Your task to perform on an android device: move an email to a new category in the gmail app Image 0: 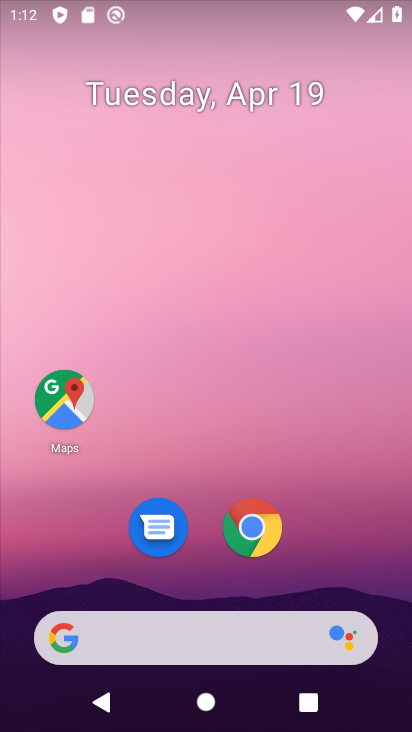
Step 0: click (254, 532)
Your task to perform on an android device: move an email to a new category in the gmail app Image 1: 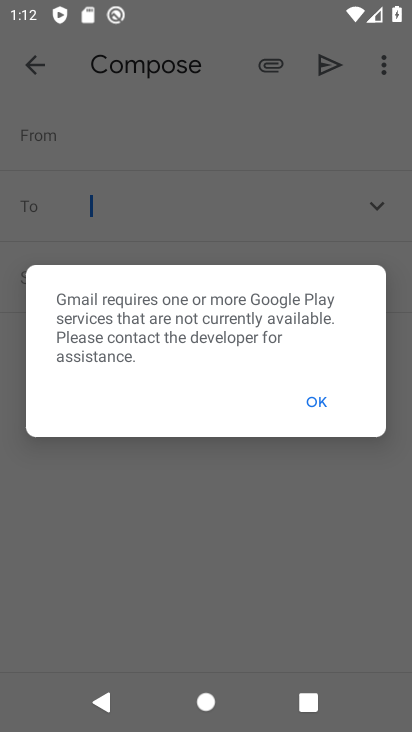
Step 1: press back button
Your task to perform on an android device: move an email to a new category in the gmail app Image 2: 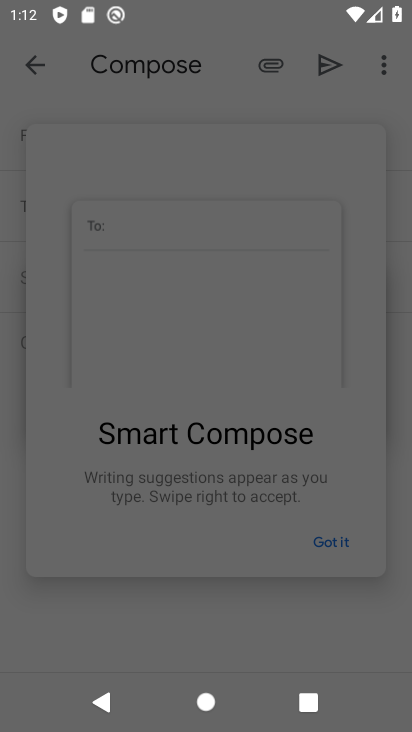
Step 2: press back button
Your task to perform on an android device: move an email to a new category in the gmail app Image 3: 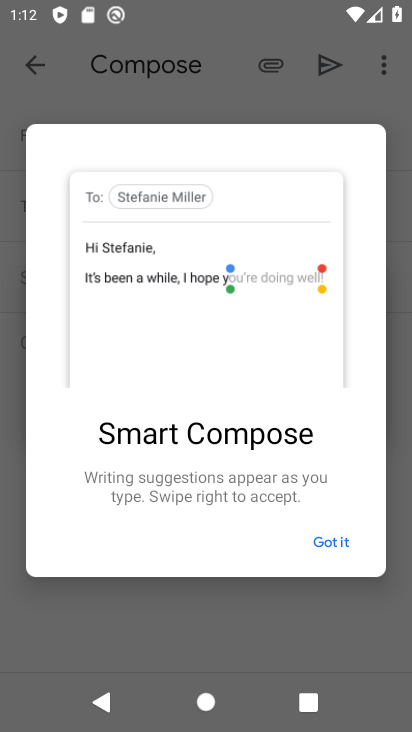
Step 3: press back button
Your task to perform on an android device: move an email to a new category in the gmail app Image 4: 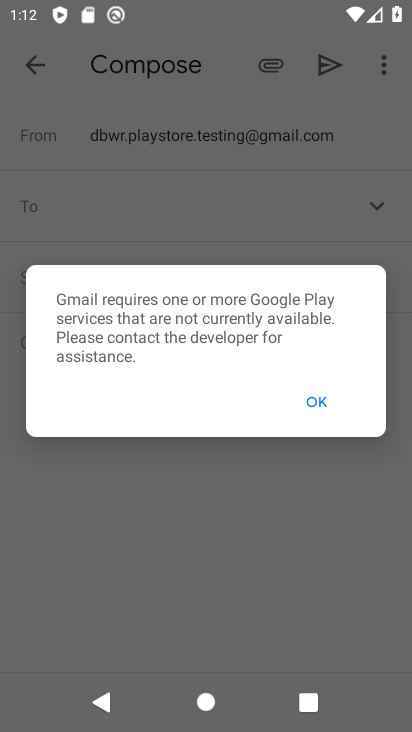
Step 4: press back button
Your task to perform on an android device: move an email to a new category in the gmail app Image 5: 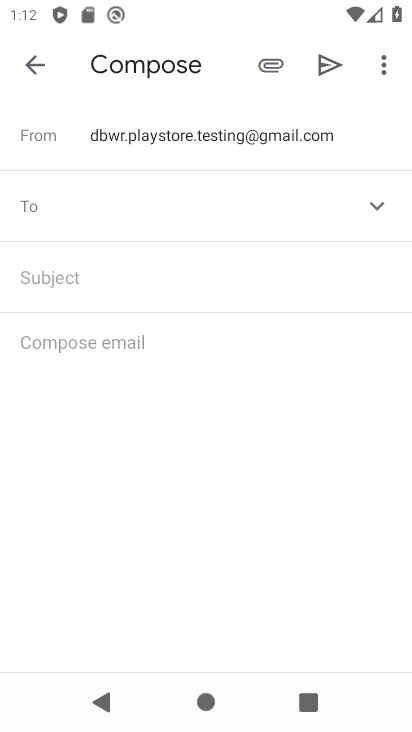
Step 5: press back button
Your task to perform on an android device: move an email to a new category in the gmail app Image 6: 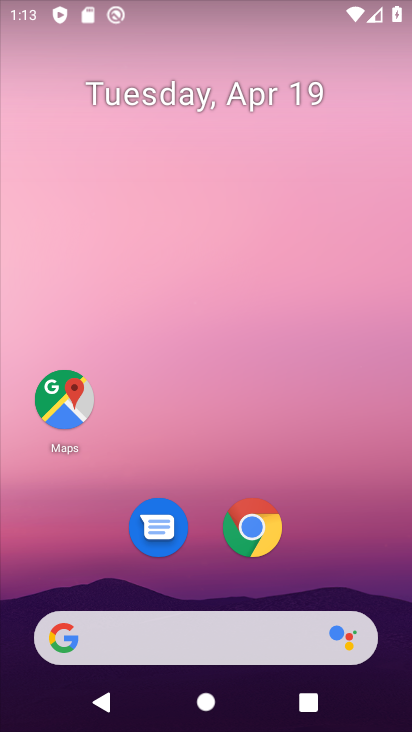
Step 6: drag from (133, 570) to (248, 151)
Your task to perform on an android device: move an email to a new category in the gmail app Image 7: 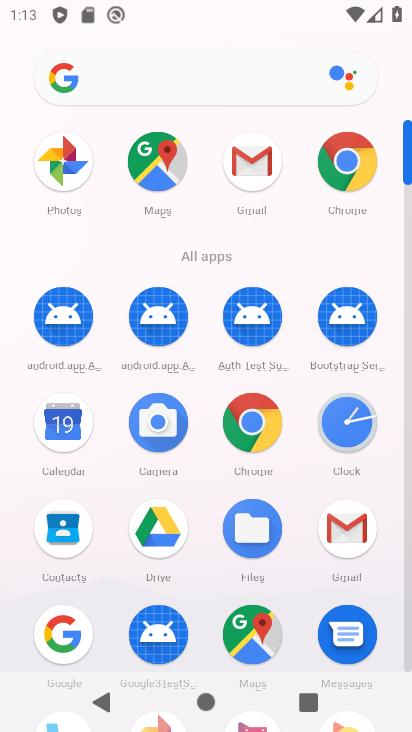
Step 7: click (257, 163)
Your task to perform on an android device: move an email to a new category in the gmail app Image 8: 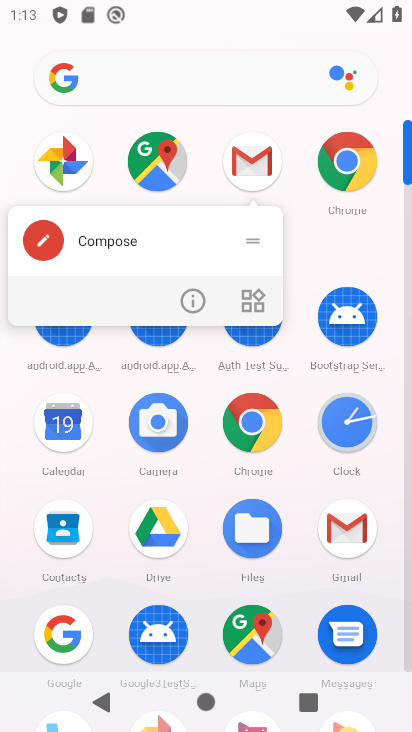
Step 8: click (250, 174)
Your task to perform on an android device: move an email to a new category in the gmail app Image 9: 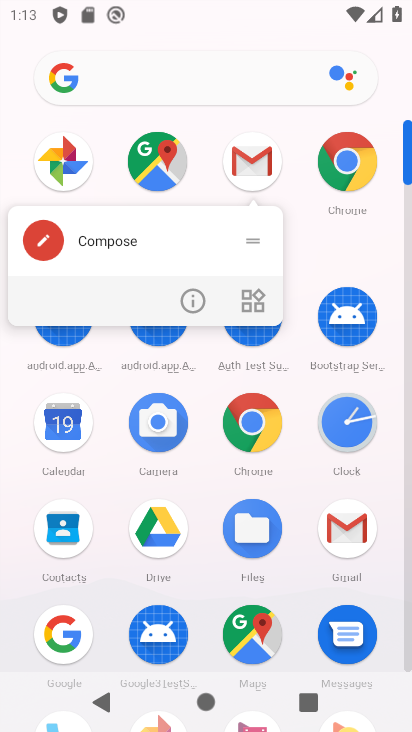
Step 9: click (250, 171)
Your task to perform on an android device: move an email to a new category in the gmail app Image 10: 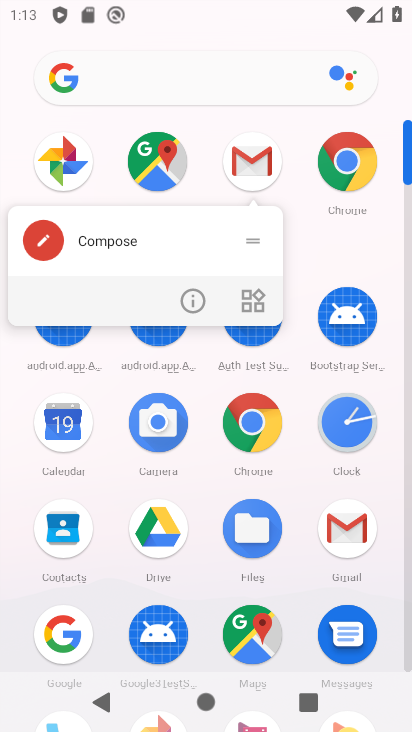
Step 10: click (251, 164)
Your task to perform on an android device: move an email to a new category in the gmail app Image 11: 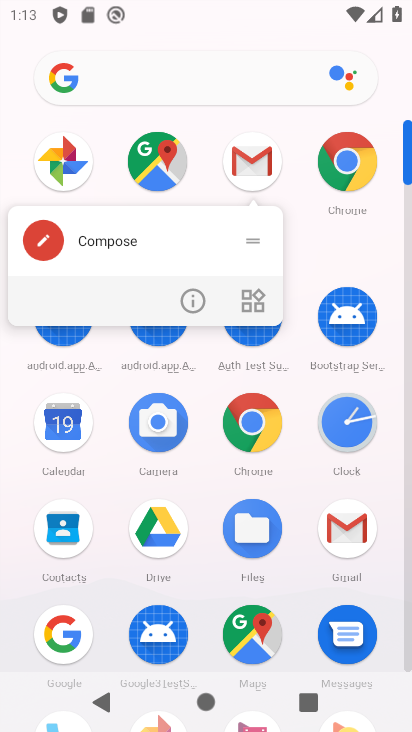
Step 11: click (263, 178)
Your task to perform on an android device: move an email to a new category in the gmail app Image 12: 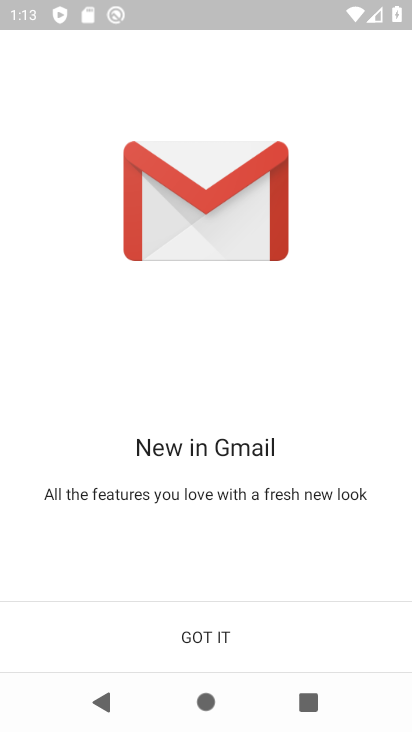
Step 12: click (207, 642)
Your task to perform on an android device: move an email to a new category in the gmail app Image 13: 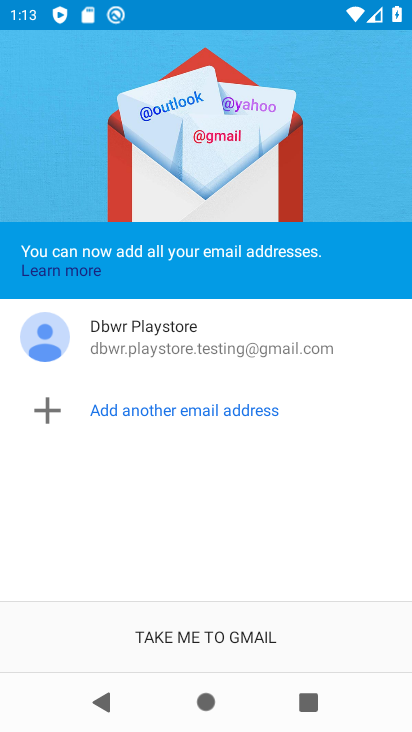
Step 13: click (208, 647)
Your task to perform on an android device: move an email to a new category in the gmail app Image 14: 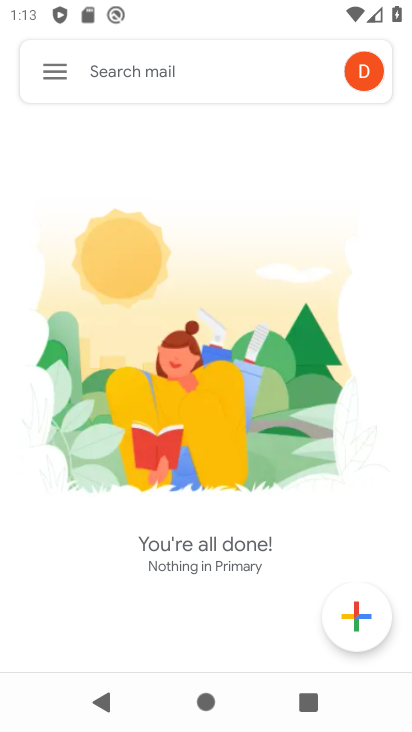
Step 14: click (67, 72)
Your task to perform on an android device: move an email to a new category in the gmail app Image 15: 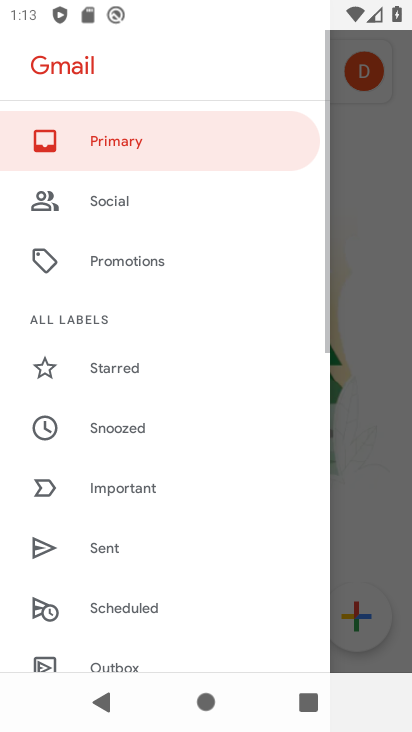
Step 15: drag from (173, 569) to (283, 231)
Your task to perform on an android device: move an email to a new category in the gmail app Image 16: 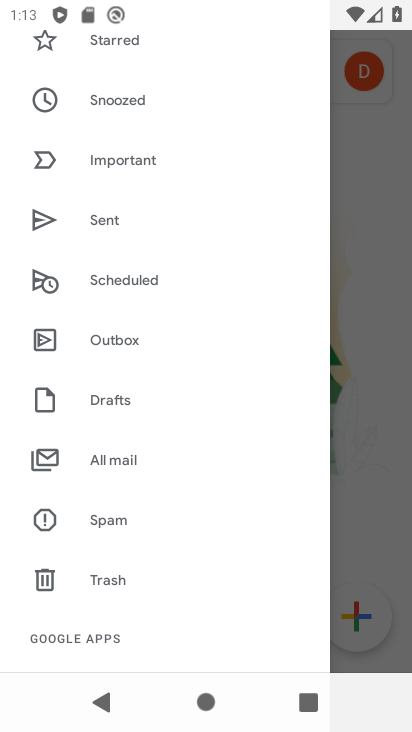
Step 16: click (195, 477)
Your task to perform on an android device: move an email to a new category in the gmail app Image 17: 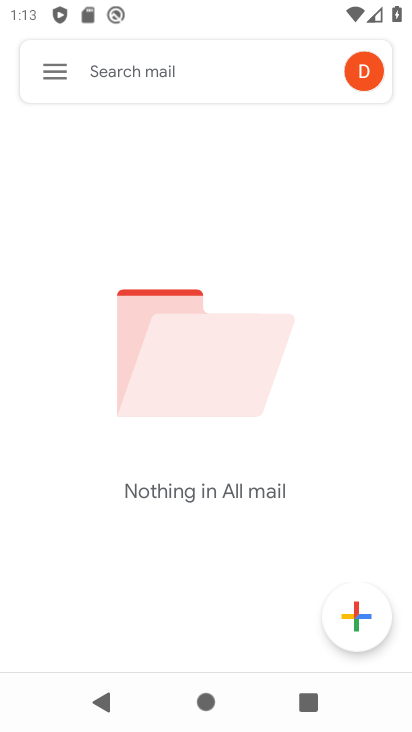
Step 17: task complete